Your task to perform on an android device: change the clock display to show seconds Image 0: 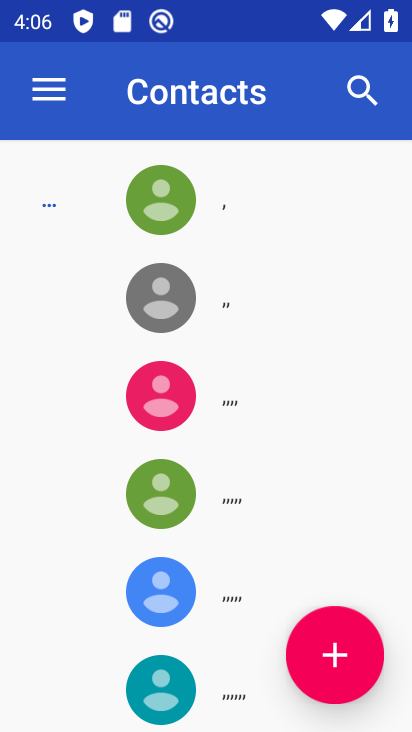
Step 0: press back button
Your task to perform on an android device: change the clock display to show seconds Image 1: 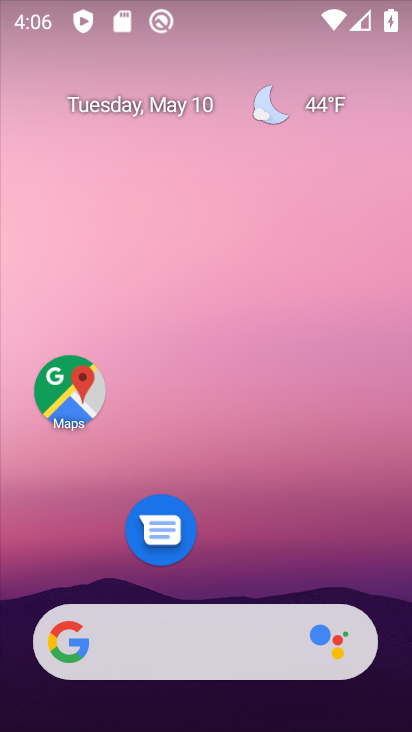
Step 1: drag from (214, 531) to (306, 21)
Your task to perform on an android device: change the clock display to show seconds Image 2: 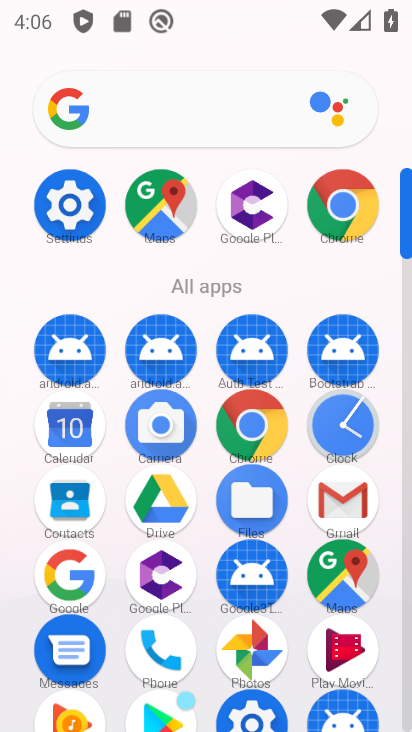
Step 2: click (345, 423)
Your task to perform on an android device: change the clock display to show seconds Image 3: 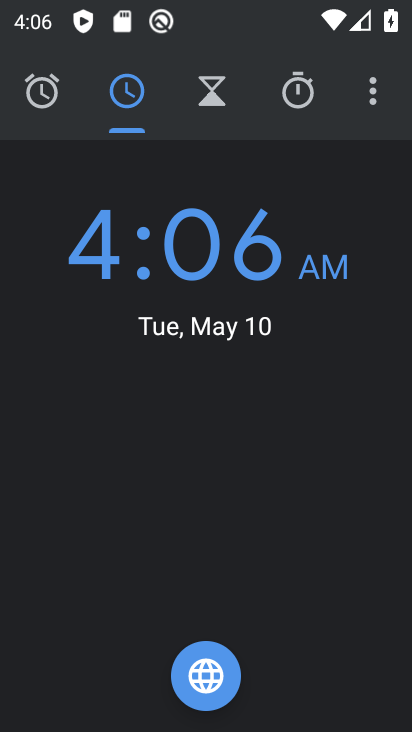
Step 3: drag from (359, 87) to (228, 363)
Your task to perform on an android device: change the clock display to show seconds Image 4: 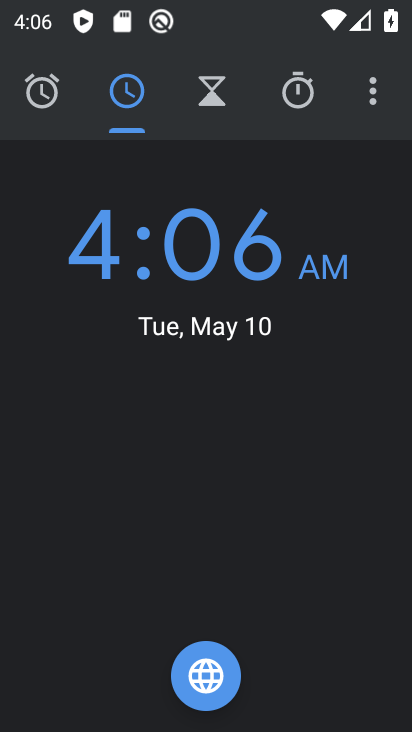
Step 4: click (169, 184)
Your task to perform on an android device: change the clock display to show seconds Image 5: 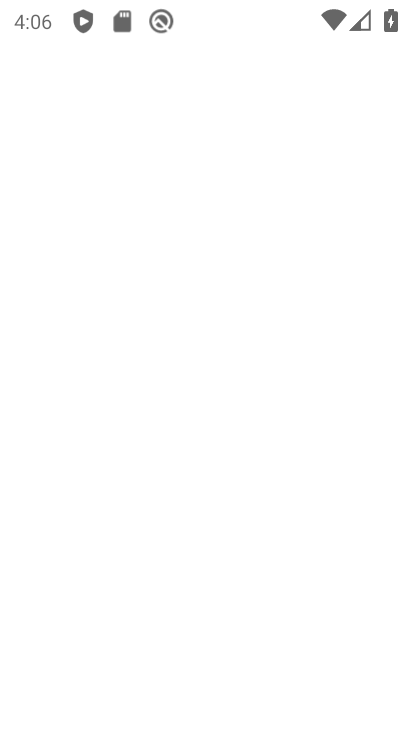
Step 5: click (378, 88)
Your task to perform on an android device: change the clock display to show seconds Image 6: 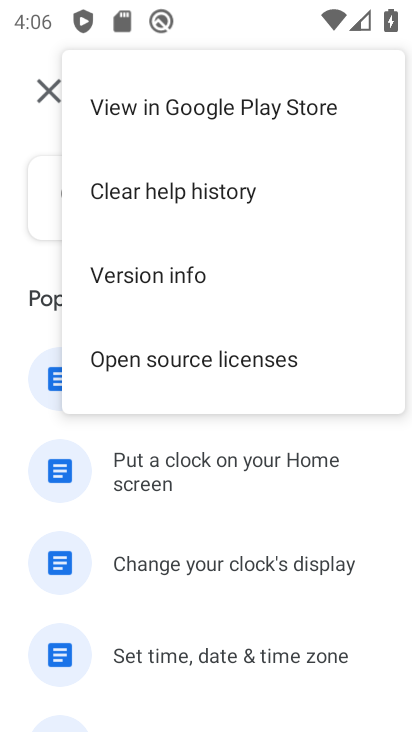
Step 6: press back button
Your task to perform on an android device: change the clock display to show seconds Image 7: 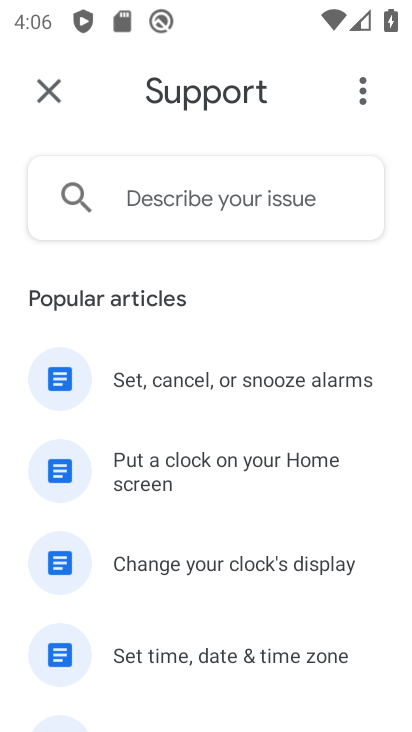
Step 7: press back button
Your task to perform on an android device: change the clock display to show seconds Image 8: 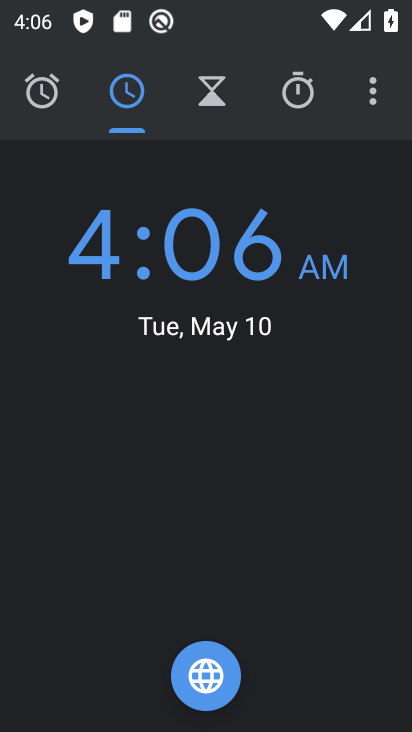
Step 8: click (376, 93)
Your task to perform on an android device: change the clock display to show seconds Image 9: 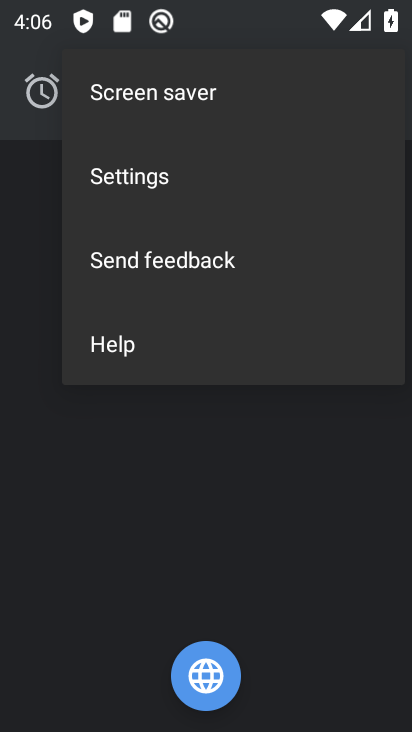
Step 9: click (130, 174)
Your task to perform on an android device: change the clock display to show seconds Image 10: 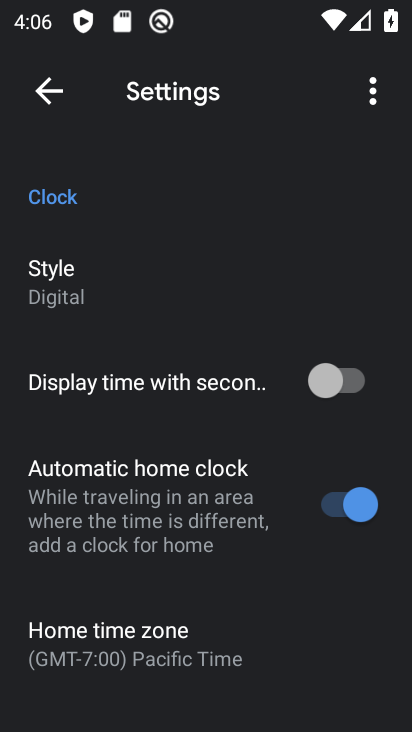
Step 10: click (123, 269)
Your task to perform on an android device: change the clock display to show seconds Image 11: 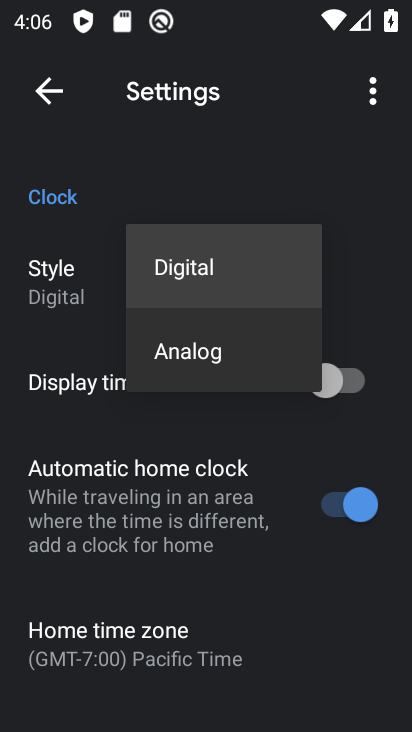
Step 11: click (211, 271)
Your task to perform on an android device: change the clock display to show seconds Image 12: 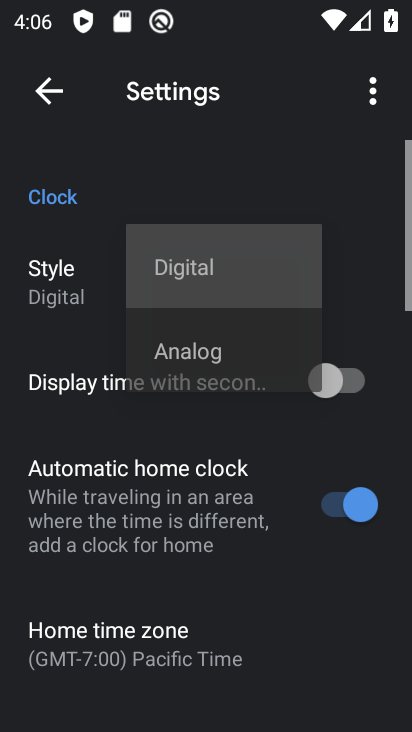
Step 12: click (344, 385)
Your task to perform on an android device: change the clock display to show seconds Image 13: 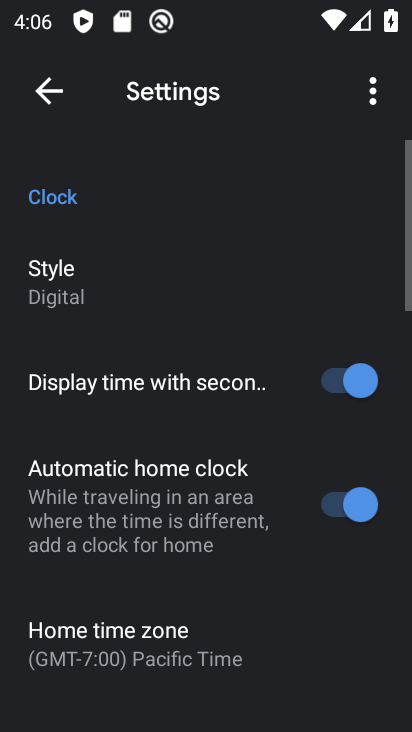
Step 13: task complete